Your task to perform on an android device: What's the weather? Image 0: 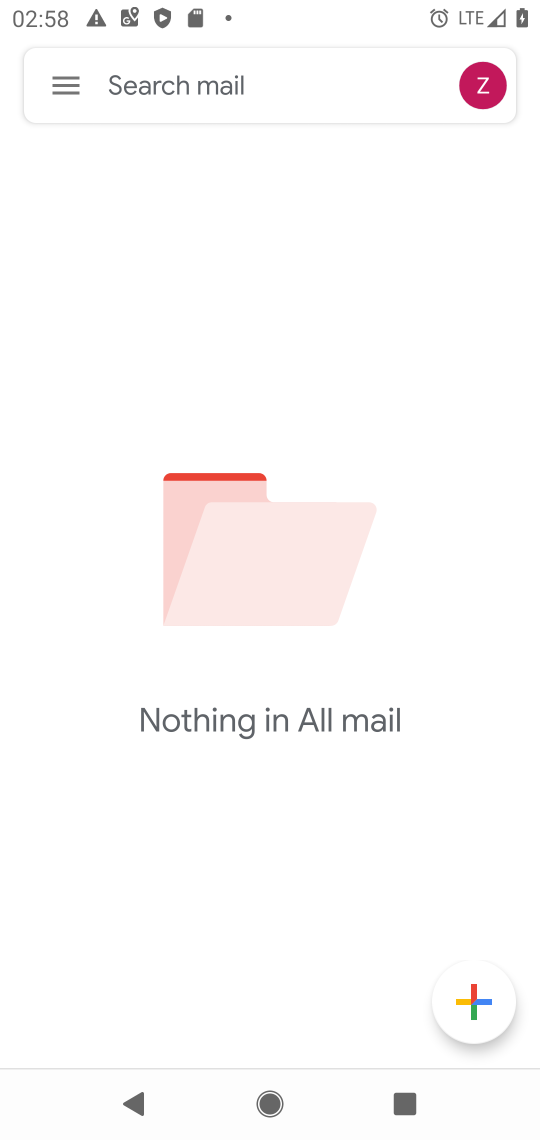
Step 0: press home button
Your task to perform on an android device: What's the weather? Image 1: 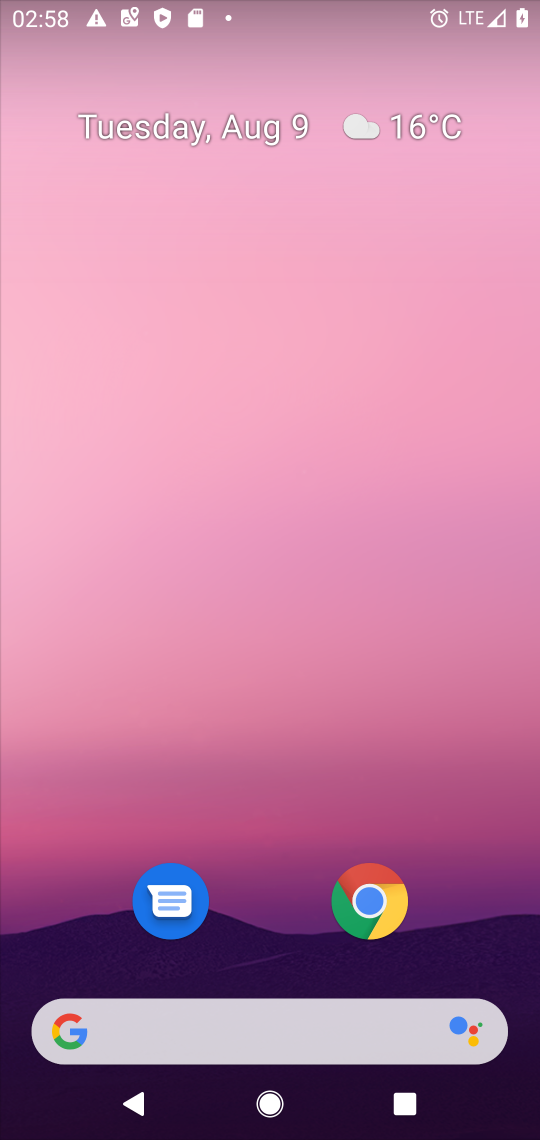
Step 1: click (408, 120)
Your task to perform on an android device: What's the weather? Image 2: 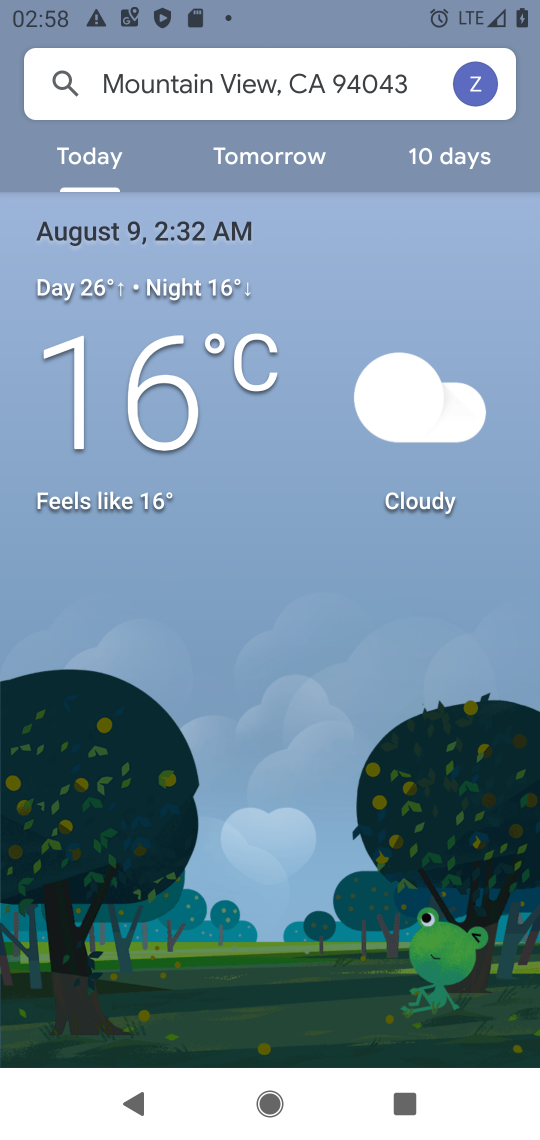
Step 2: drag from (347, 778) to (347, 479)
Your task to perform on an android device: What's the weather? Image 3: 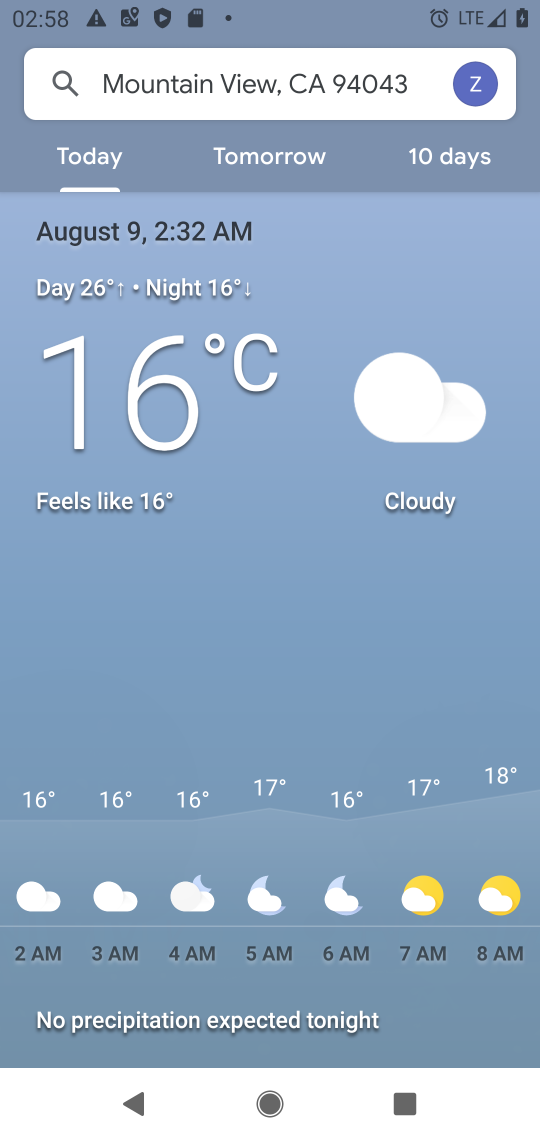
Step 3: drag from (480, 899) to (393, 903)
Your task to perform on an android device: What's the weather? Image 4: 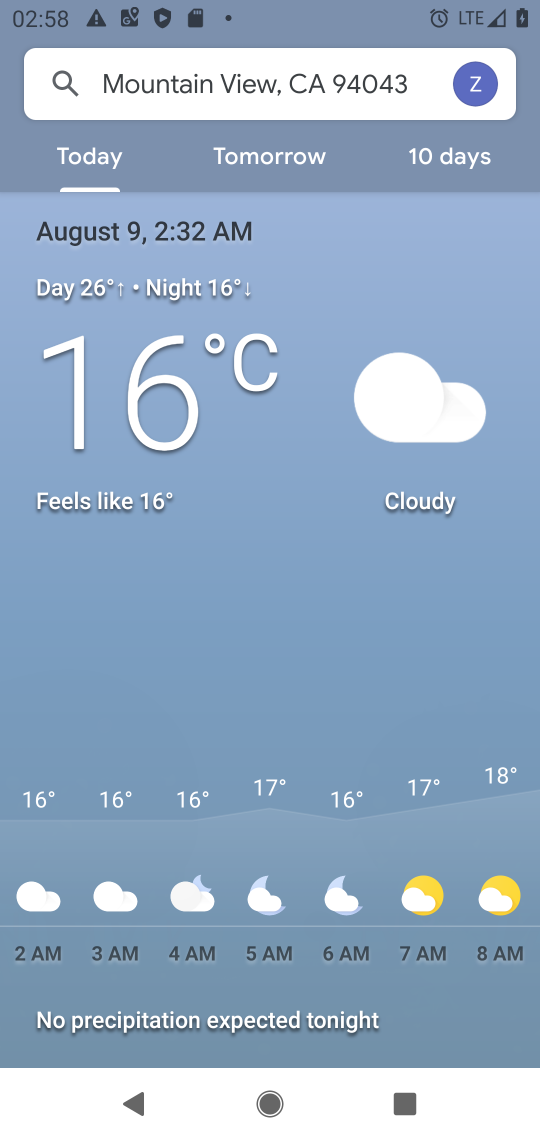
Step 4: click (476, 909)
Your task to perform on an android device: What's the weather? Image 5: 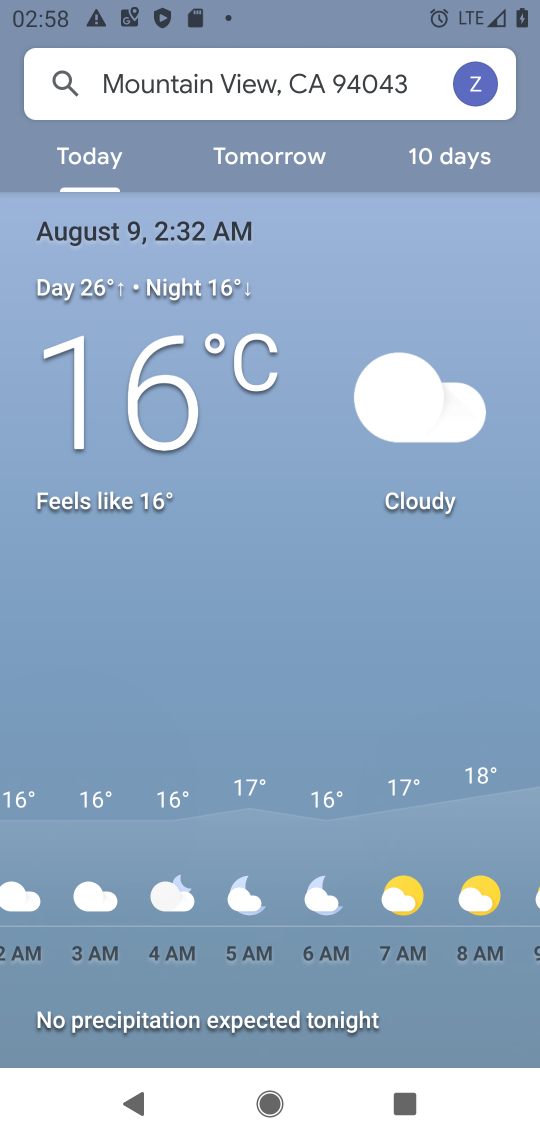
Step 5: click (410, 903)
Your task to perform on an android device: What's the weather? Image 6: 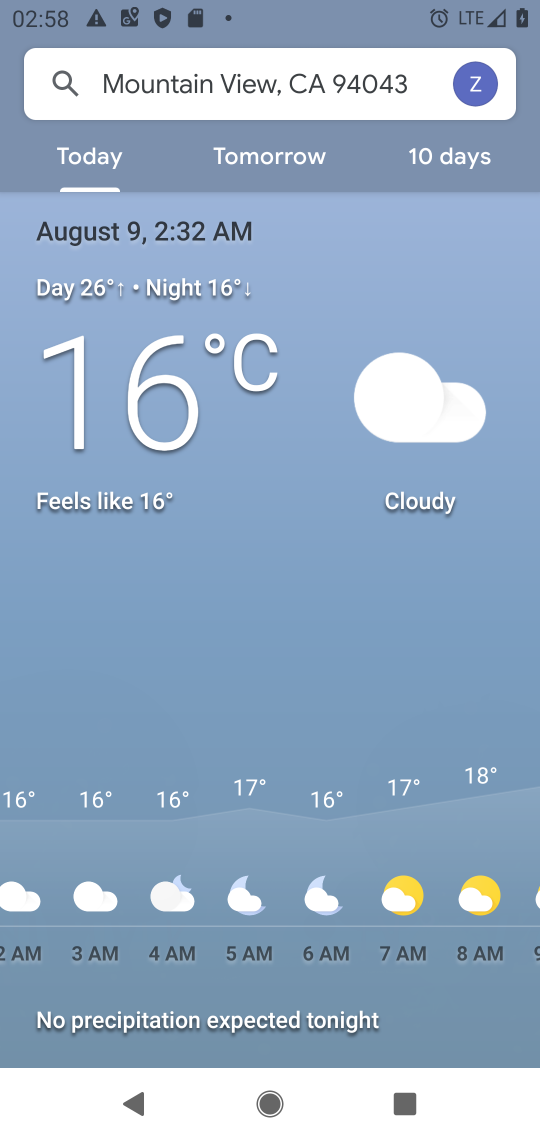
Step 6: task complete